Your task to perform on an android device: Open settings Image 0: 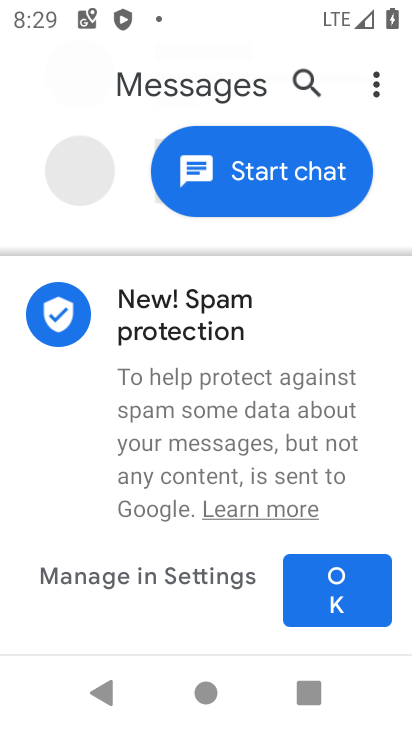
Step 0: press home button
Your task to perform on an android device: Open settings Image 1: 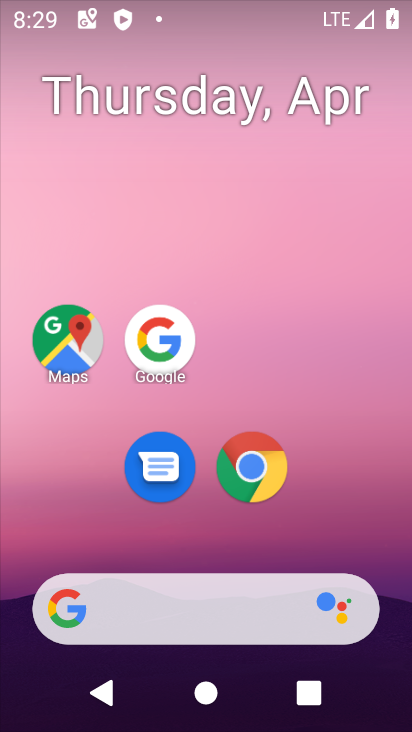
Step 1: drag from (249, 582) to (158, 48)
Your task to perform on an android device: Open settings Image 2: 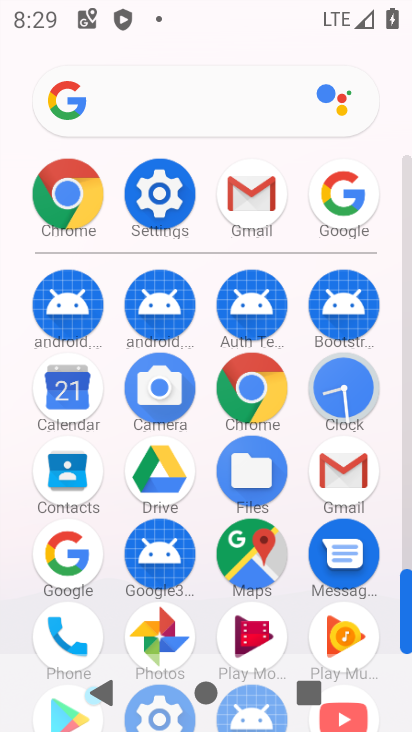
Step 2: click (165, 184)
Your task to perform on an android device: Open settings Image 3: 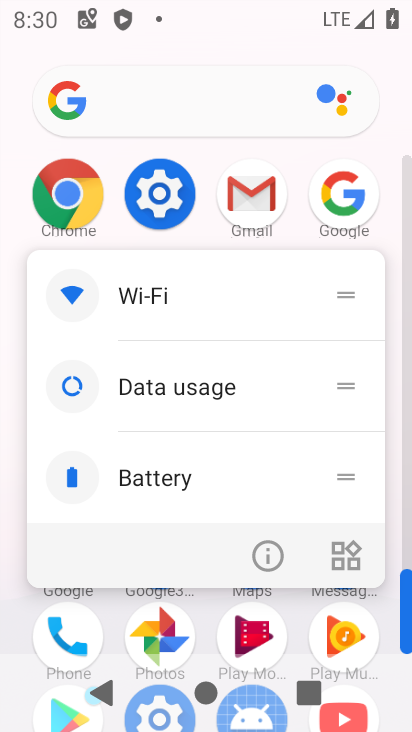
Step 3: click (146, 202)
Your task to perform on an android device: Open settings Image 4: 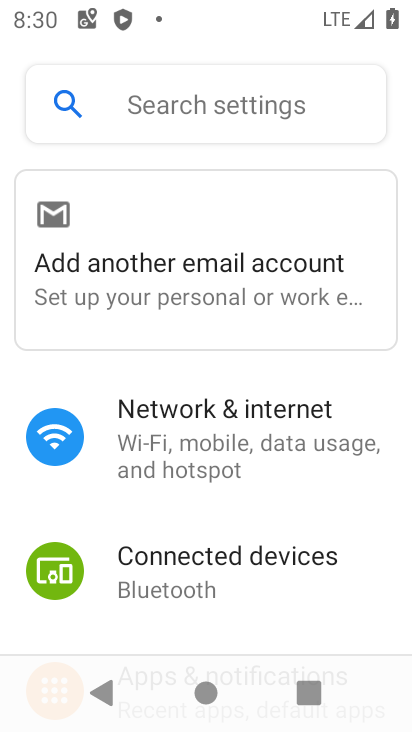
Step 4: task complete